Your task to perform on an android device: toggle translation in the chrome app Image 0: 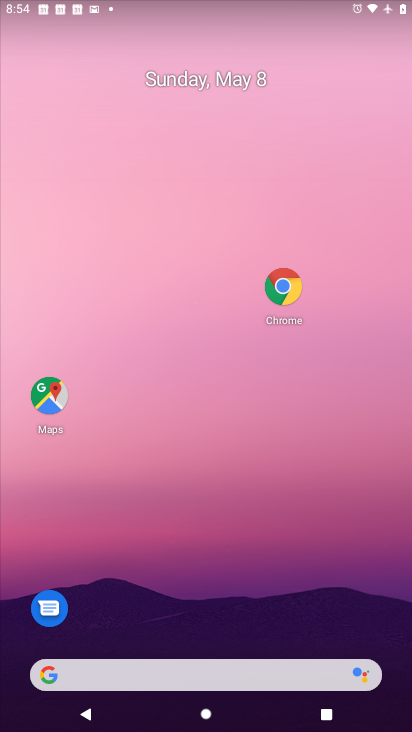
Step 0: click (286, 290)
Your task to perform on an android device: toggle translation in the chrome app Image 1: 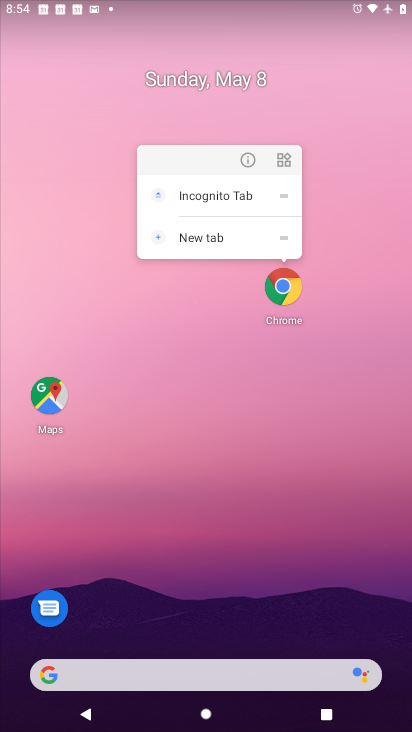
Step 1: click (289, 293)
Your task to perform on an android device: toggle translation in the chrome app Image 2: 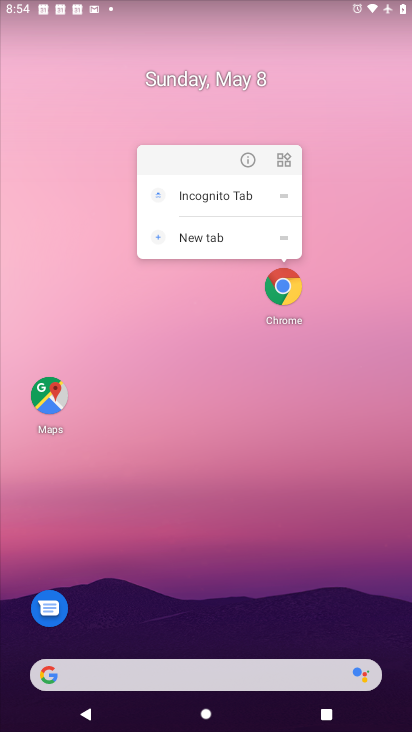
Step 2: click (282, 287)
Your task to perform on an android device: toggle translation in the chrome app Image 3: 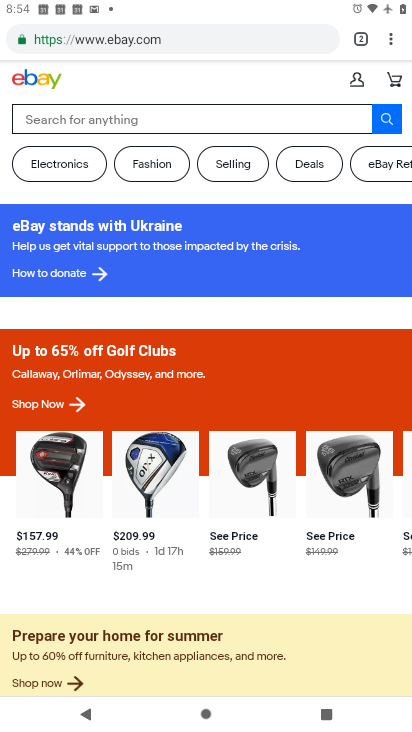
Step 3: drag from (392, 42) to (269, 475)
Your task to perform on an android device: toggle translation in the chrome app Image 4: 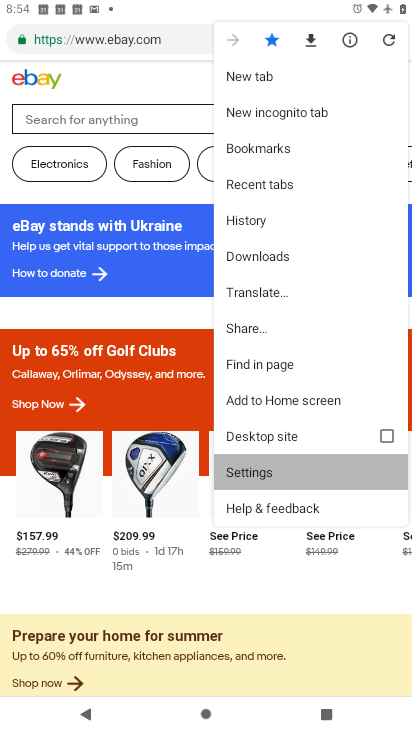
Step 4: click (269, 475)
Your task to perform on an android device: toggle translation in the chrome app Image 5: 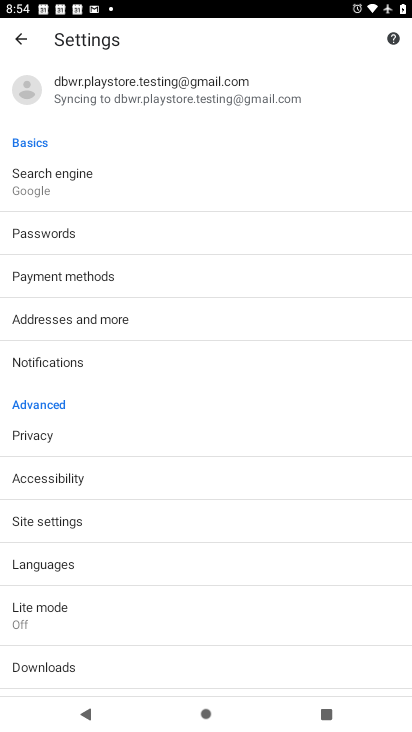
Step 5: click (74, 565)
Your task to perform on an android device: toggle translation in the chrome app Image 6: 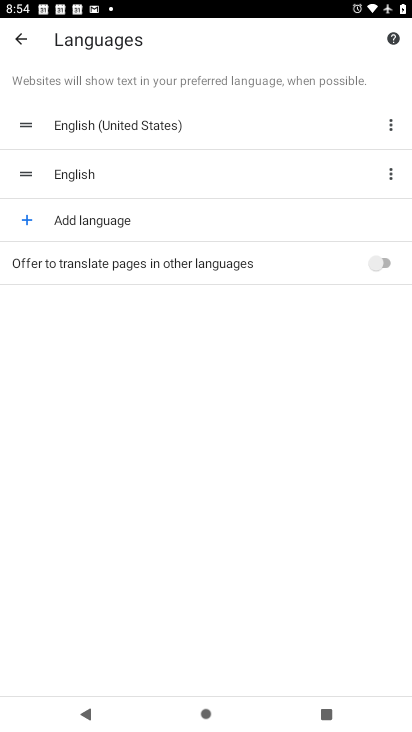
Step 6: click (386, 262)
Your task to perform on an android device: toggle translation in the chrome app Image 7: 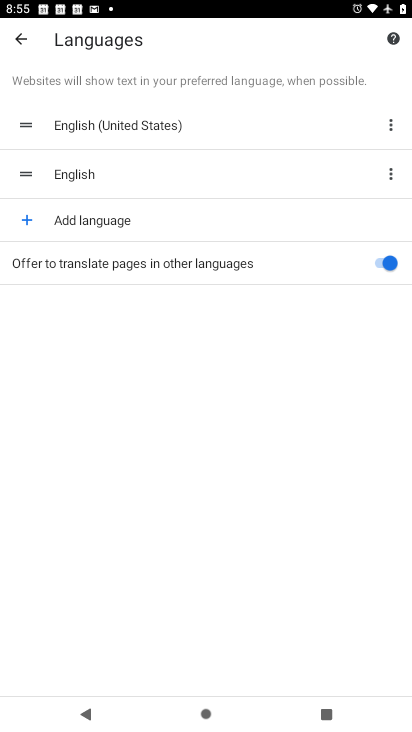
Step 7: task complete